Your task to perform on an android device: turn off notifications settings in the gmail app Image 0: 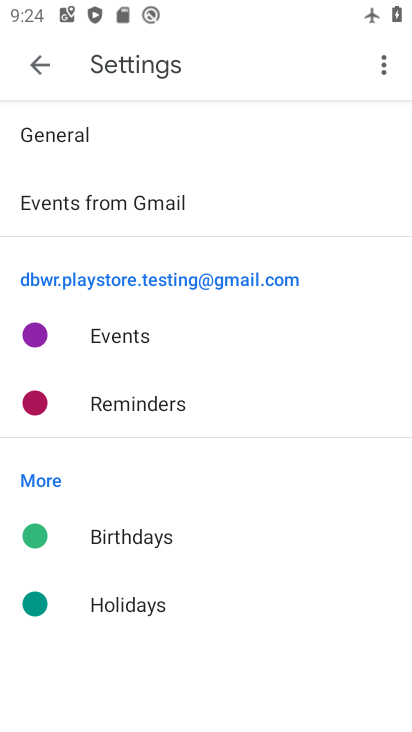
Step 0: press home button
Your task to perform on an android device: turn off notifications settings in the gmail app Image 1: 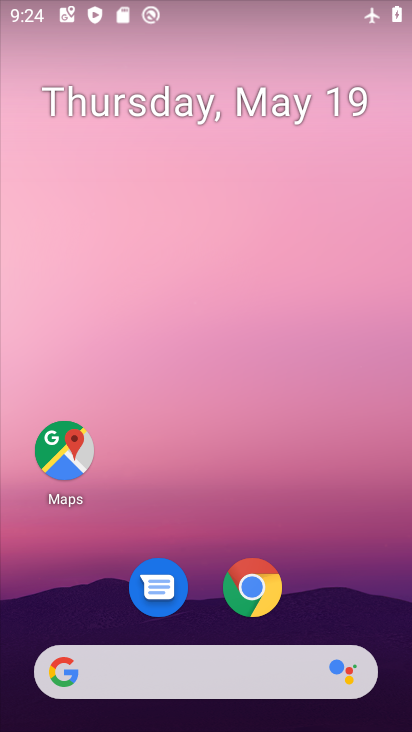
Step 1: drag from (185, 657) to (115, 80)
Your task to perform on an android device: turn off notifications settings in the gmail app Image 2: 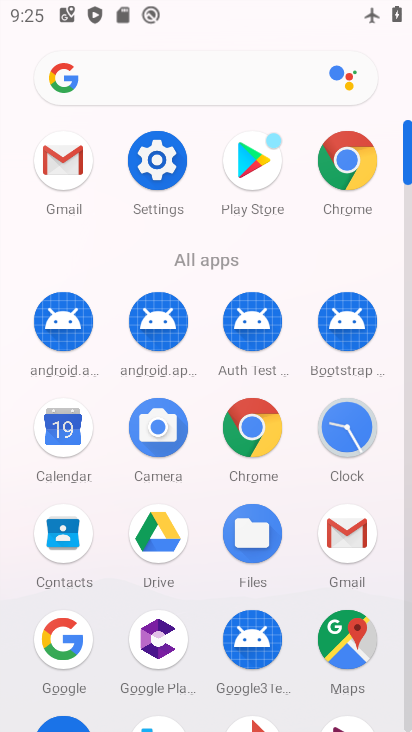
Step 2: click (70, 164)
Your task to perform on an android device: turn off notifications settings in the gmail app Image 3: 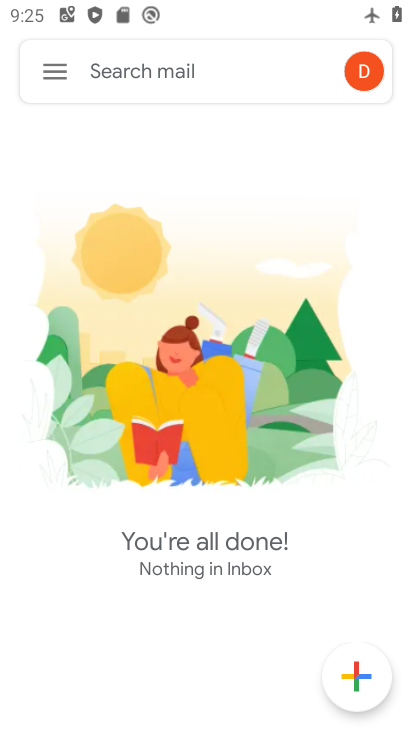
Step 3: click (58, 84)
Your task to perform on an android device: turn off notifications settings in the gmail app Image 4: 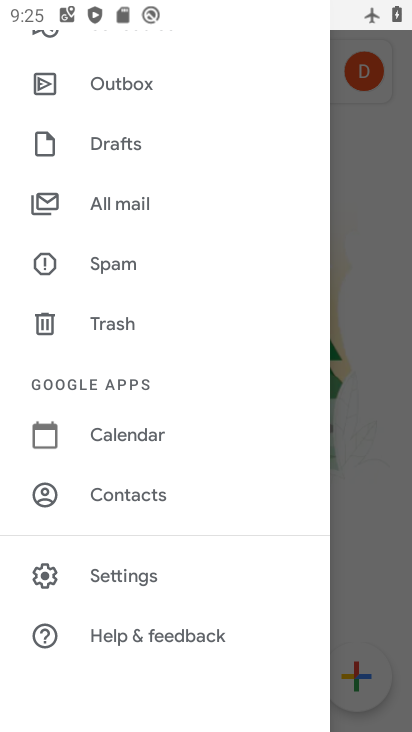
Step 4: click (132, 580)
Your task to perform on an android device: turn off notifications settings in the gmail app Image 5: 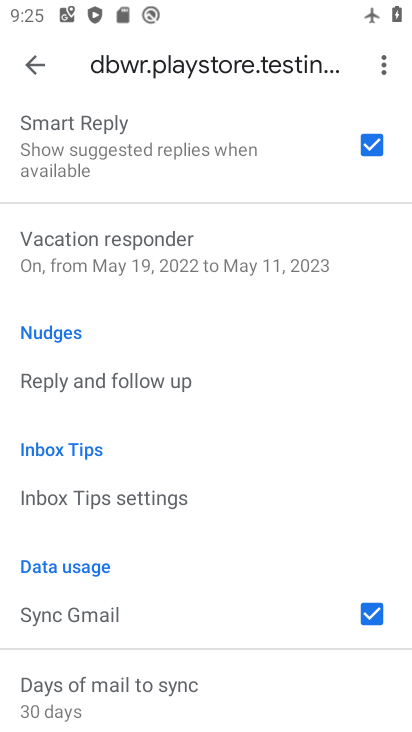
Step 5: drag from (75, 658) to (73, 63)
Your task to perform on an android device: turn off notifications settings in the gmail app Image 6: 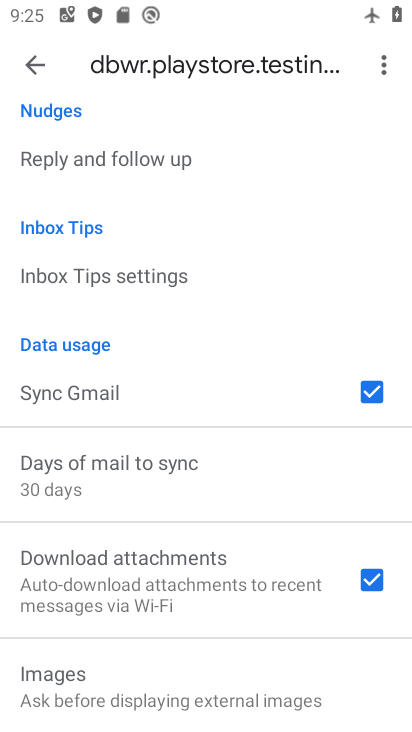
Step 6: drag from (144, 667) to (11, 18)
Your task to perform on an android device: turn off notifications settings in the gmail app Image 7: 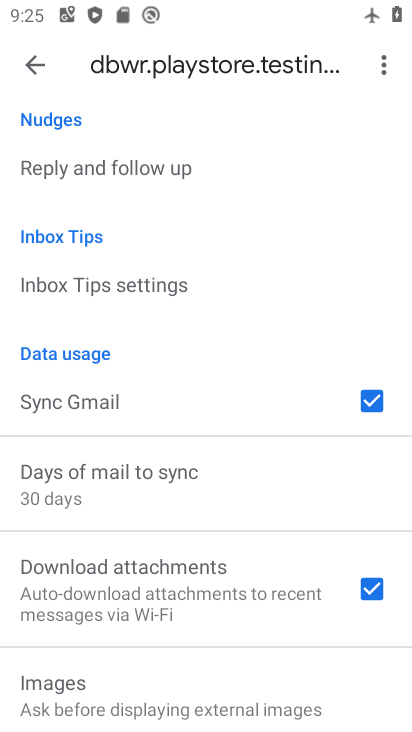
Step 7: drag from (202, 652) to (94, 250)
Your task to perform on an android device: turn off notifications settings in the gmail app Image 8: 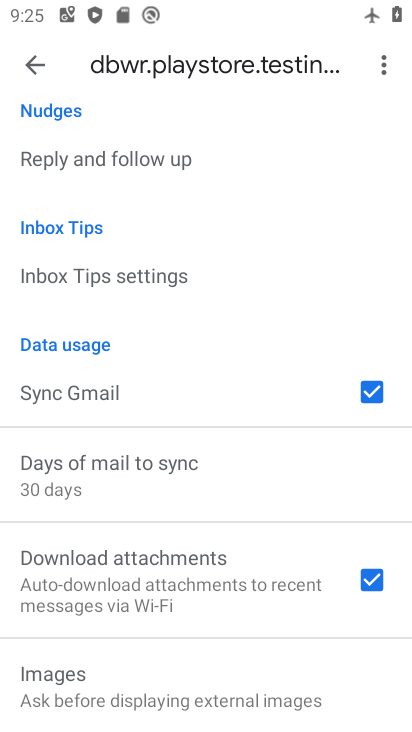
Step 8: drag from (126, 212) to (169, 665)
Your task to perform on an android device: turn off notifications settings in the gmail app Image 9: 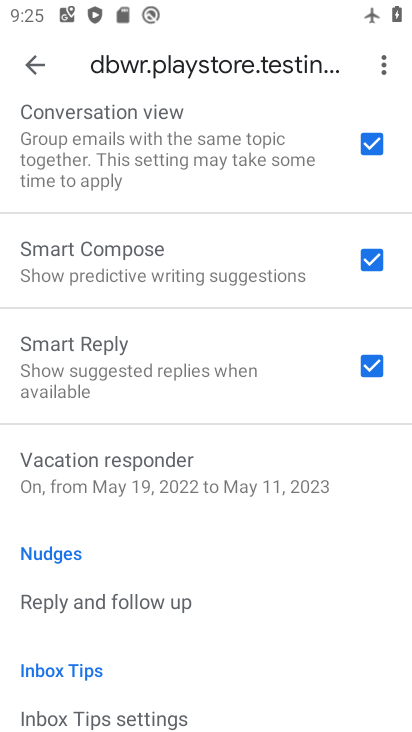
Step 9: drag from (158, 230) to (125, 717)
Your task to perform on an android device: turn off notifications settings in the gmail app Image 10: 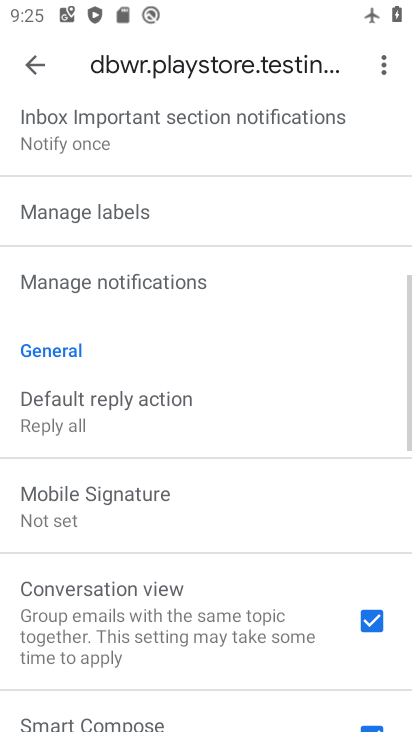
Step 10: click (96, 285)
Your task to perform on an android device: turn off notifications settings in the gmail app Image 11: 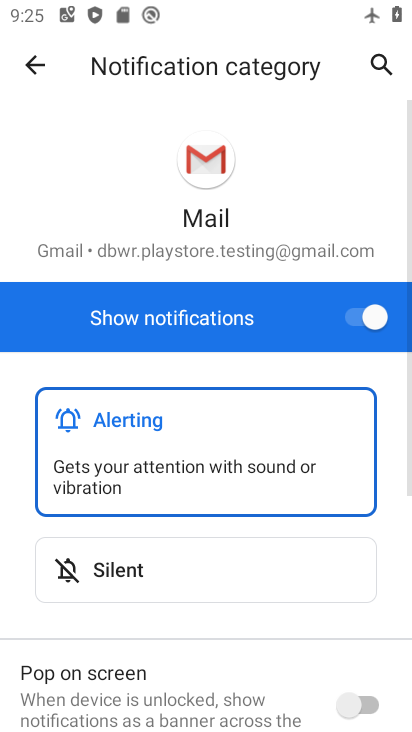
Step 11: click (375, 306)
Your task to perform on an android device: turn off notifications settings in the gmail app Image 12: 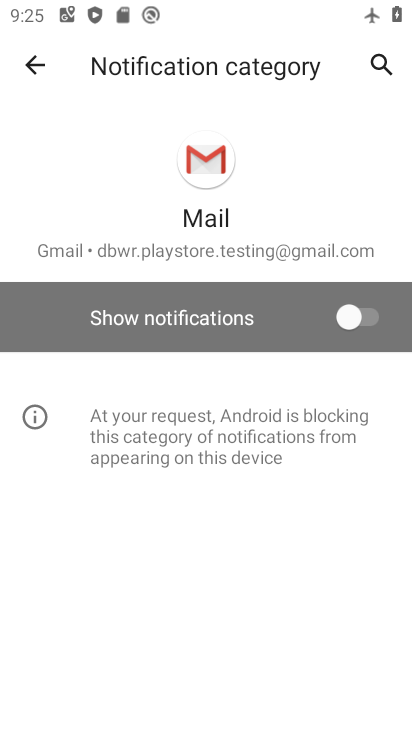
Step 12: task complete